Your task to perform on an android device: open app "Google Calendar" Image 0: 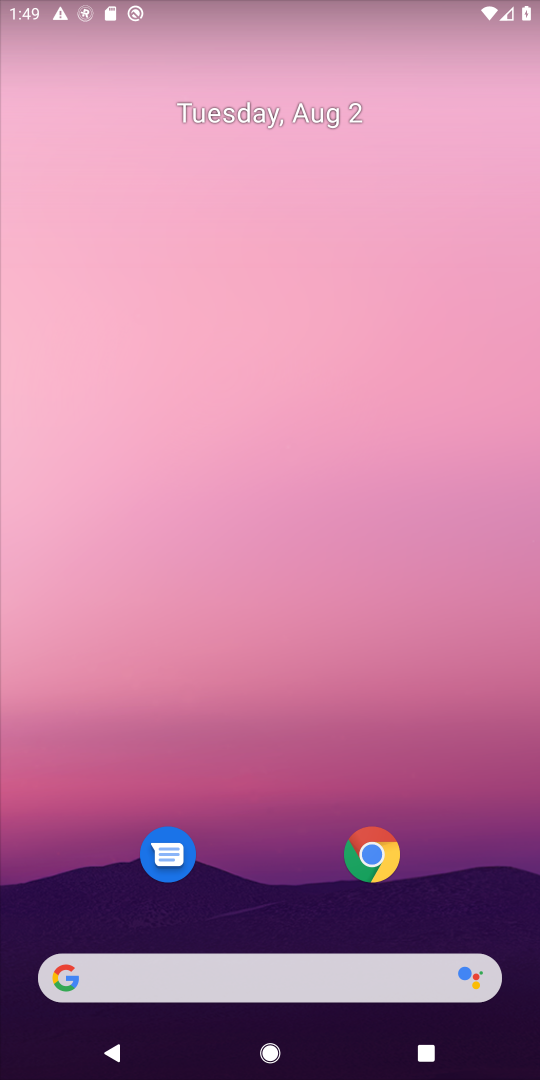
Step 0: drag from (302, 1073) to (260, 137)
Your task to perform on an android device: open app "Google Calendar" Image 1: 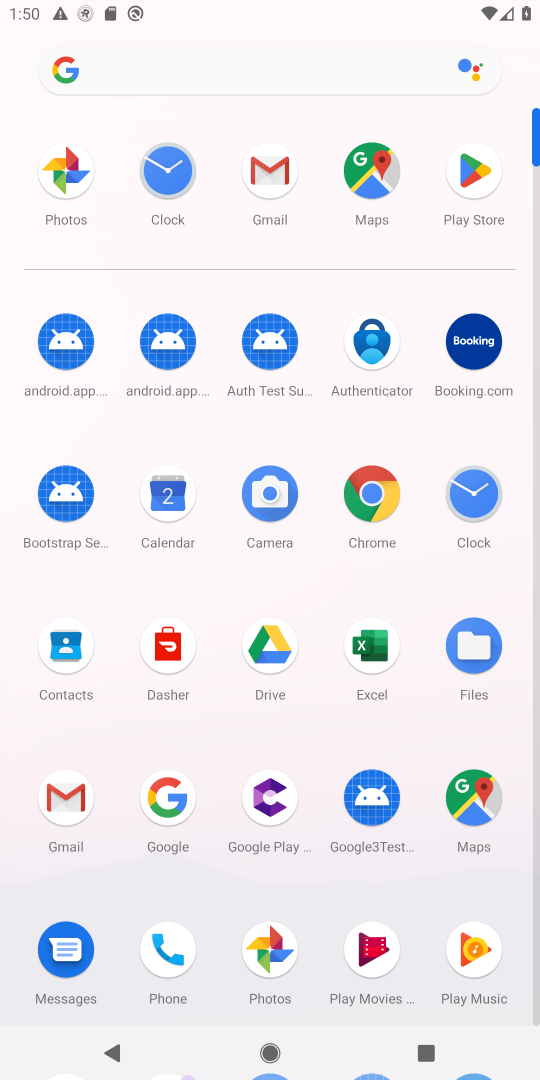
Step 1: drag from (298, 918) to (291, 571)
Your task to perform on an android device: open app "Google Calendar" Image 2: 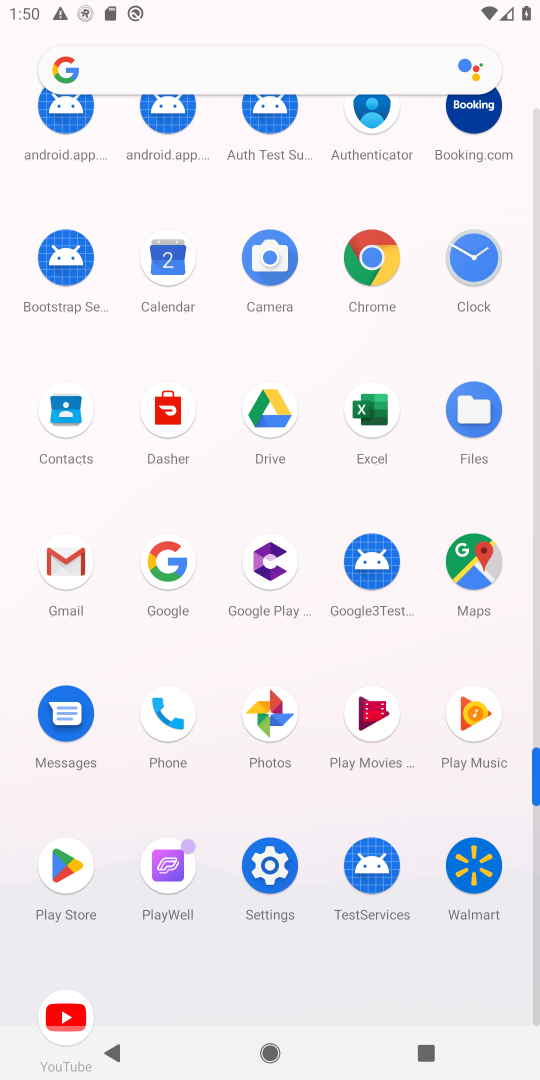
Step 2: drag from (303, 311) to (316, 741)
Your task to perform on an android device: open app "Google Calendar" Image 3: 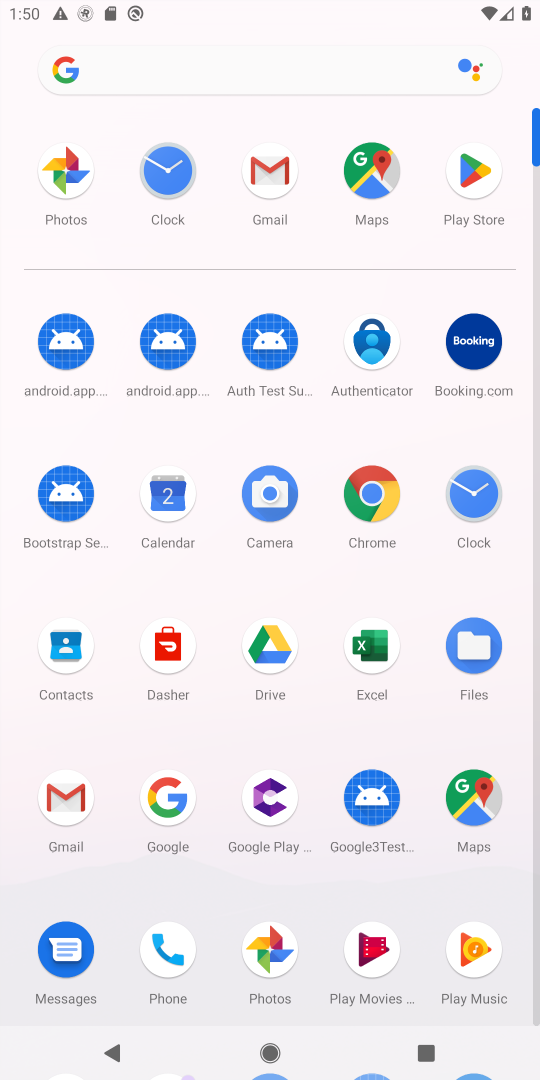
Step 3: drag from (216, 915) to (187, 670)
Your task to perform on an android device: open app "Google Calendar" Image 4: 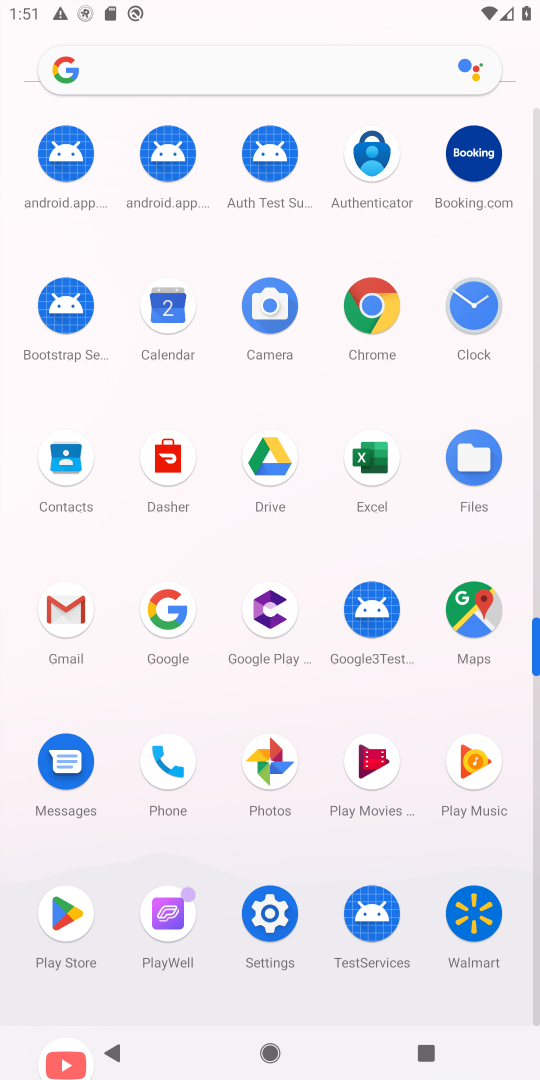
Step 4: click (166, 311)
Your task to perform on an android device: open app "Google Calendar" Image 5: 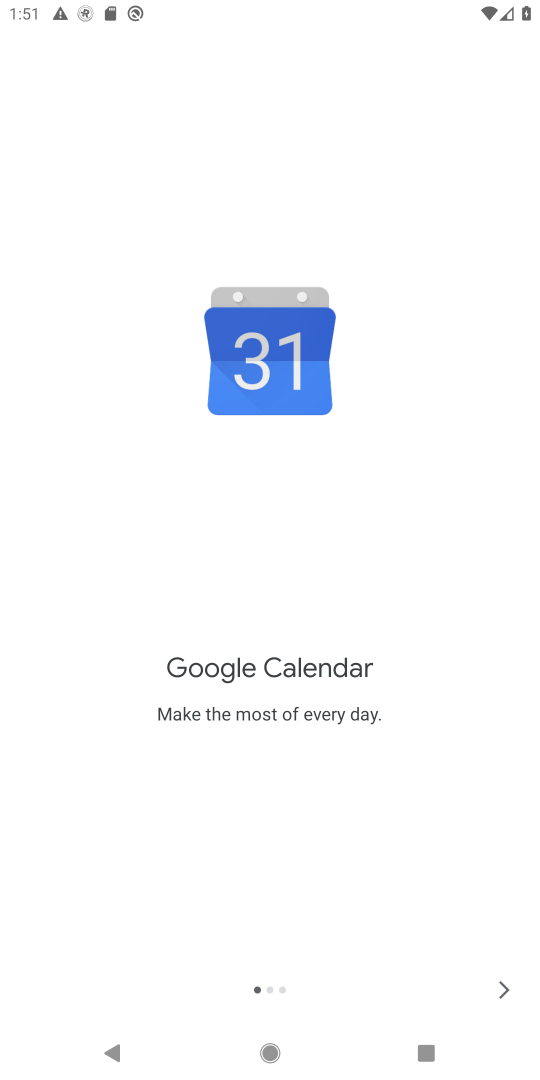
Step 5: click (496, 978)
Your task to perform on an android device: open app "Google Calendar" Image 6: 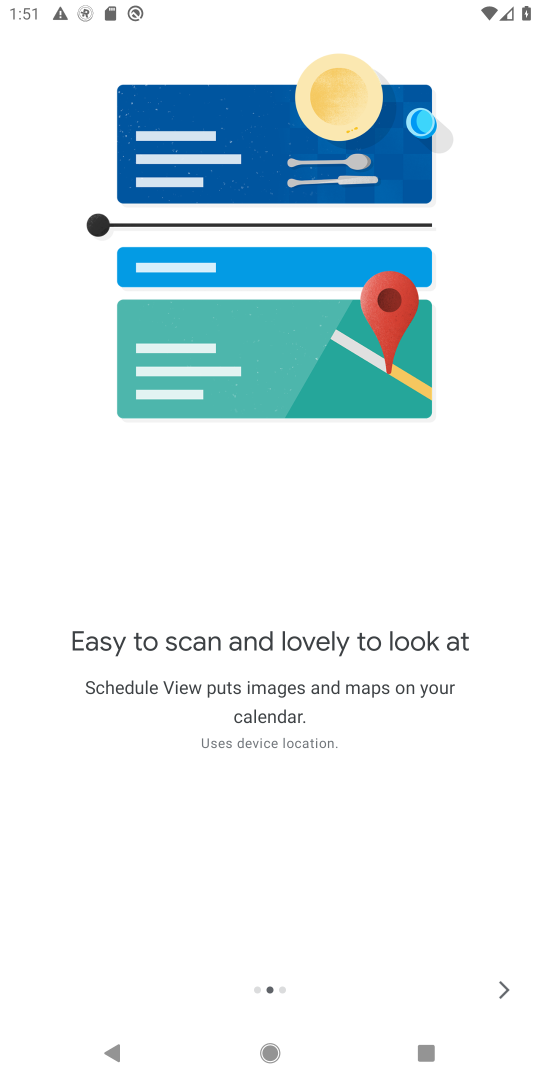
Step 6: click (496, 978)
Your task to perform on an android device: open app "Google Calendar" Image 7: 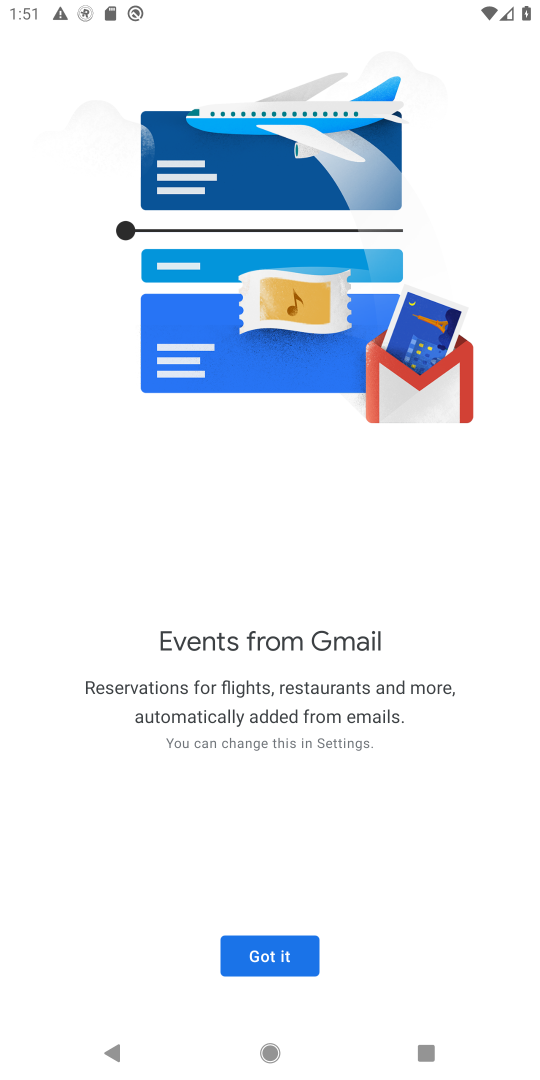
Step 7: click (266, 952)
Your task to perform on an android device: open app "Google Calendar" Image 8: 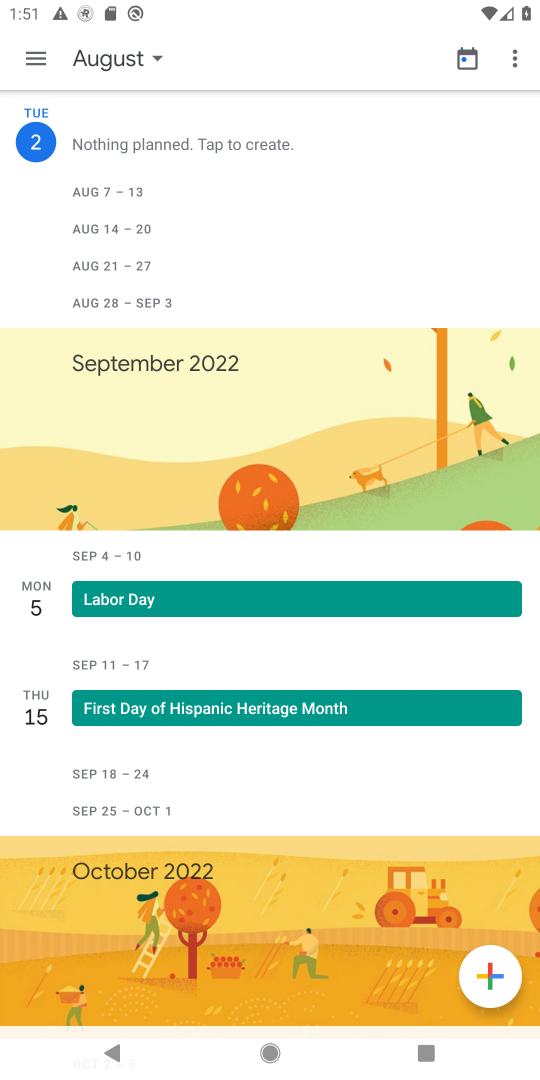
Step 8: task complete